Your task to perform on an android device: turn off priority inbox in the gmail app Image 0: 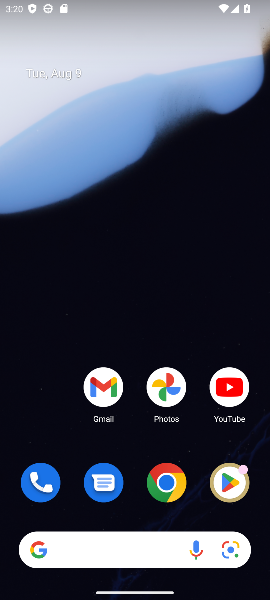
Step 0: click (111, 402)
Your task to perform on an android device: turn off priority inbox in the gmail app Image 1: 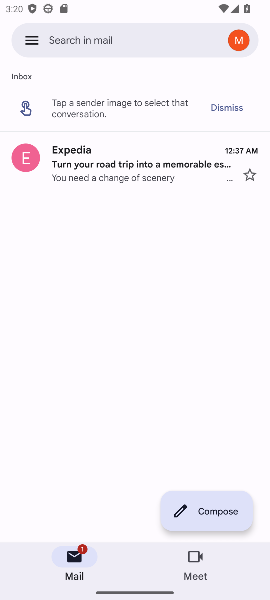
Step 1: click (20, 36)
Your task to perform on an android device: turn off priority inbox in the gmail app Image 2: 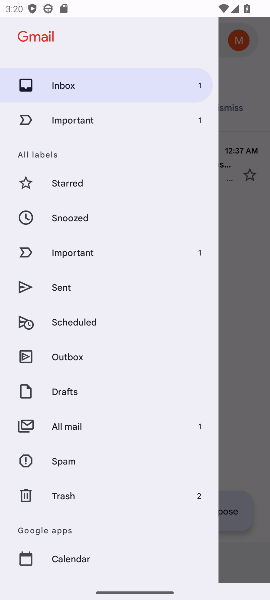
Step 2: drag from (78, 525) to (83, 237)
Your task to perform on an android device: turn off priority inbox in the gmail app Image 3: 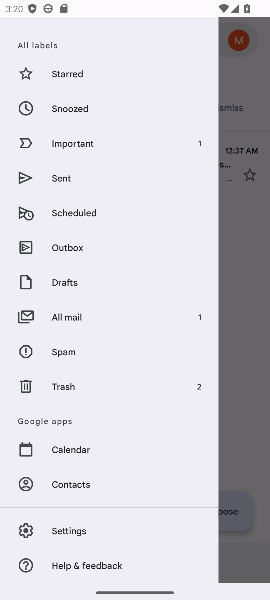
Step 3: click (62, 520)
Your task to perform on an android device: turn off priority inbox in the gmail app Image 4: 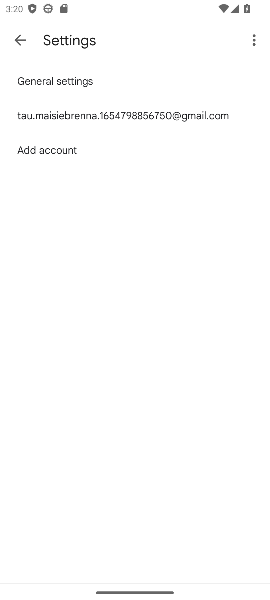
Step 4: click (85, 122)
Your task to perform on an android device: turn off priority inbox in the gmail app Image 5: 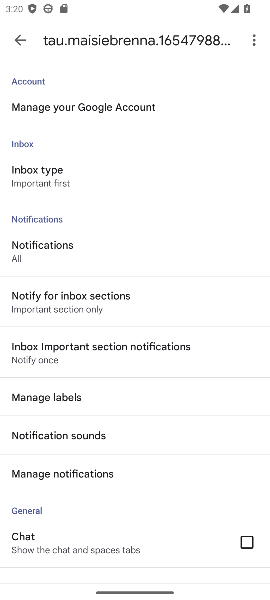
Step 5: click (72, 169)
Your task to perform on an android device: turn off priority inbox in the gmail app Image 6: 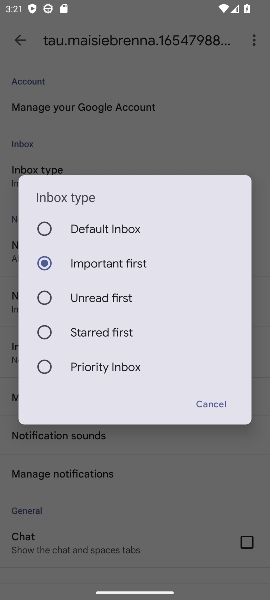
Step 6: task complete